Your task to perform on an android device: Search for Italian restaurants on Maps Image 0: 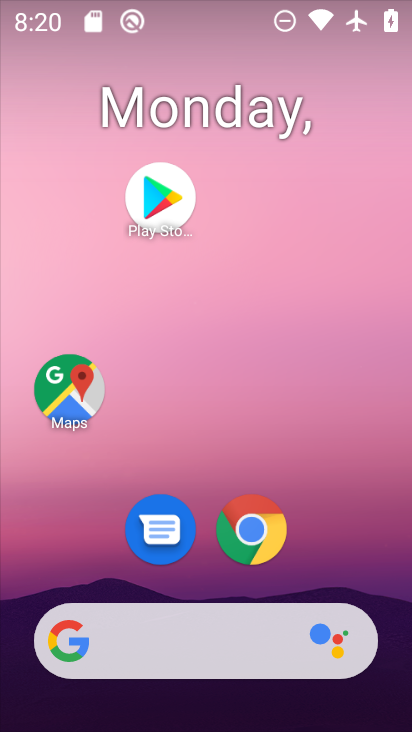
Step 0: click (47, 386)
Your task to perform on an android device: Search for Italian restaurants on Maps Image 1: 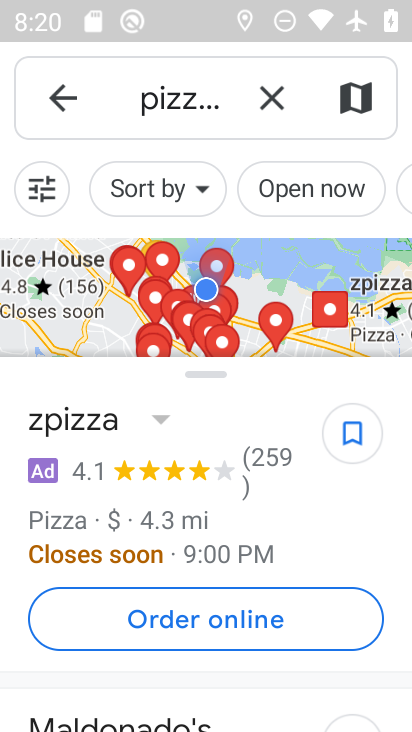
Step 1: click (269, 104)
Your task to perform on an android device: Search for Italian restaurants on Maps Image 2: 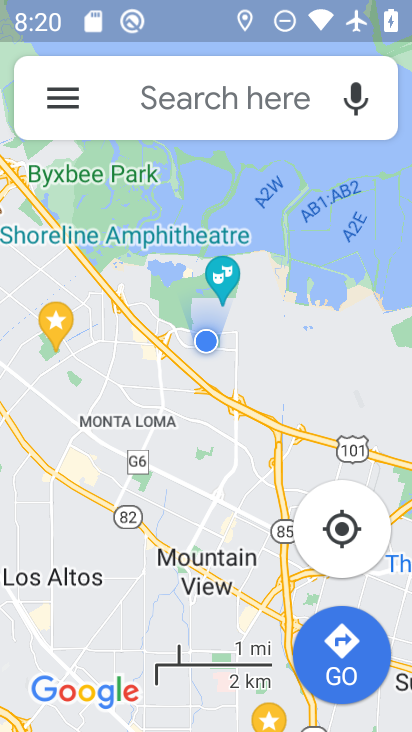
Step 2: click (190, 97)
Your task to perform on an android device: Search for Italian restaurants on Maps Image 3: 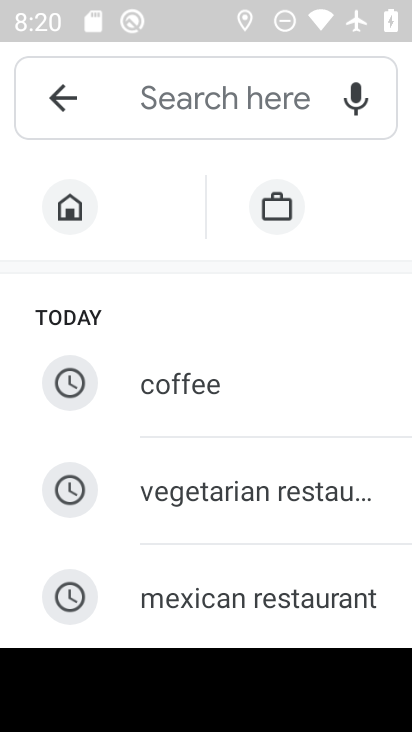
Step 3: drag from (289, 514) to (287, 285)
Your task to perform on an android device: Search for Italian restaurants on Maps Image 4: 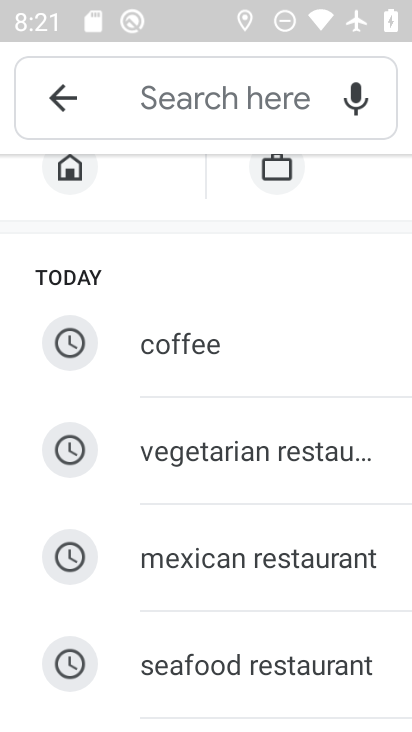
Step 4: click (187, 86)
Your task to perform on an android device: Search for Italian restaurants on Maps Image 5: 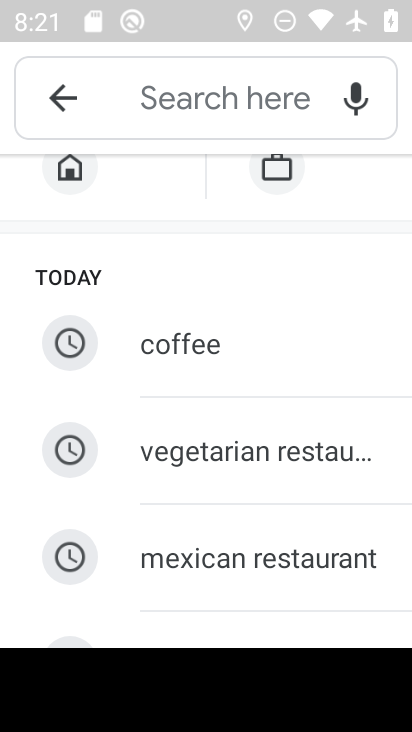
Step 5: type "itali"
Your task to perform on an android device: Search for Italian restaurants on Maps Image 6: 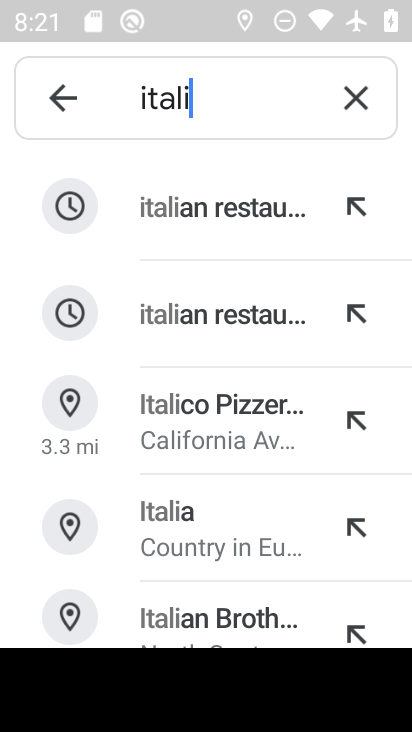
Step 6: click (231, 199)
Your task to perform on an android device: Search for Italian restaurants on Maps Image 7: 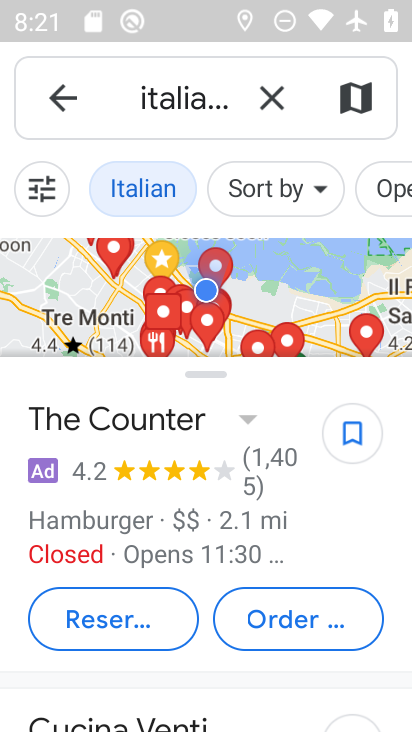
Step 7: task complete